Your task to perform on an android device: Search for "dell xps" on amazon.com, select the first entry, add it to the cart, then select checkout. Image 0: 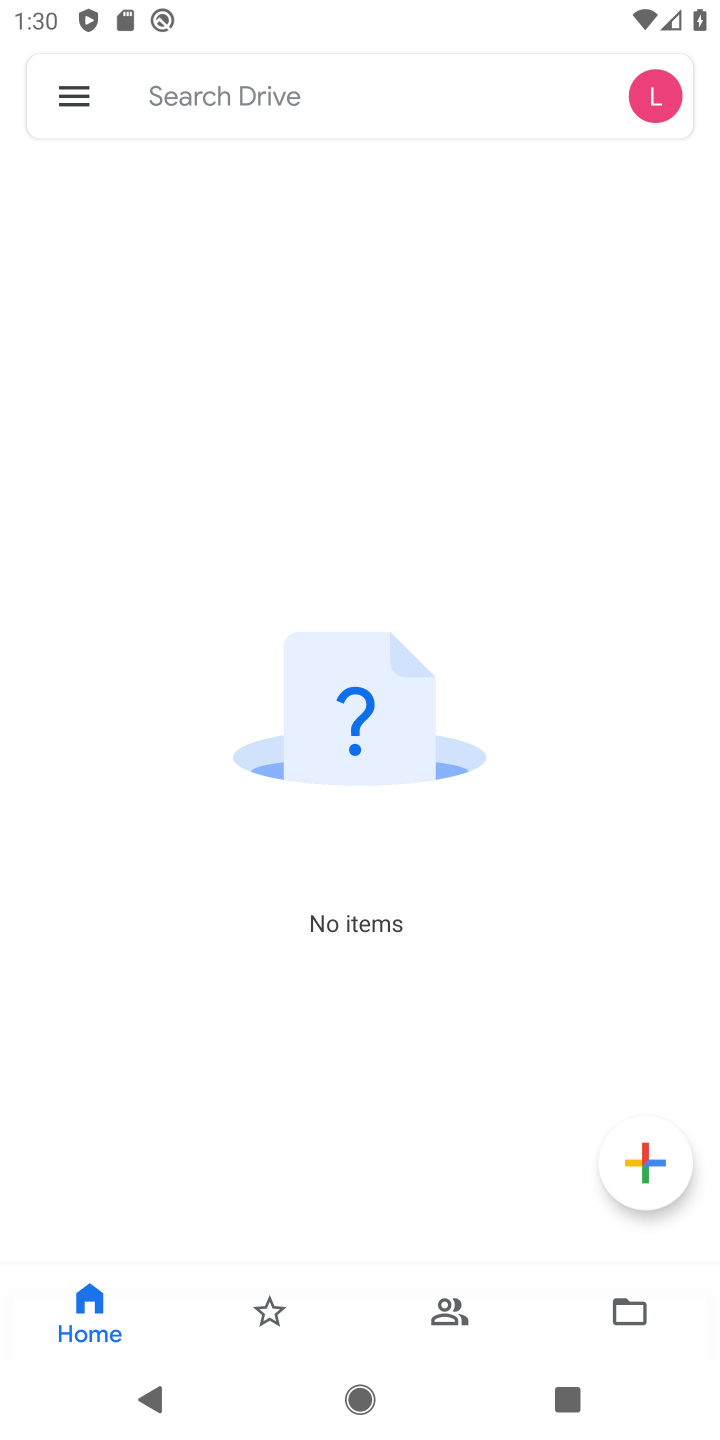
Step 0: press home button
Your task to perform on an android device: Search for "dell xps" on amazon.com, select the first entry, add it to the cart, then select checkout. Image 1: 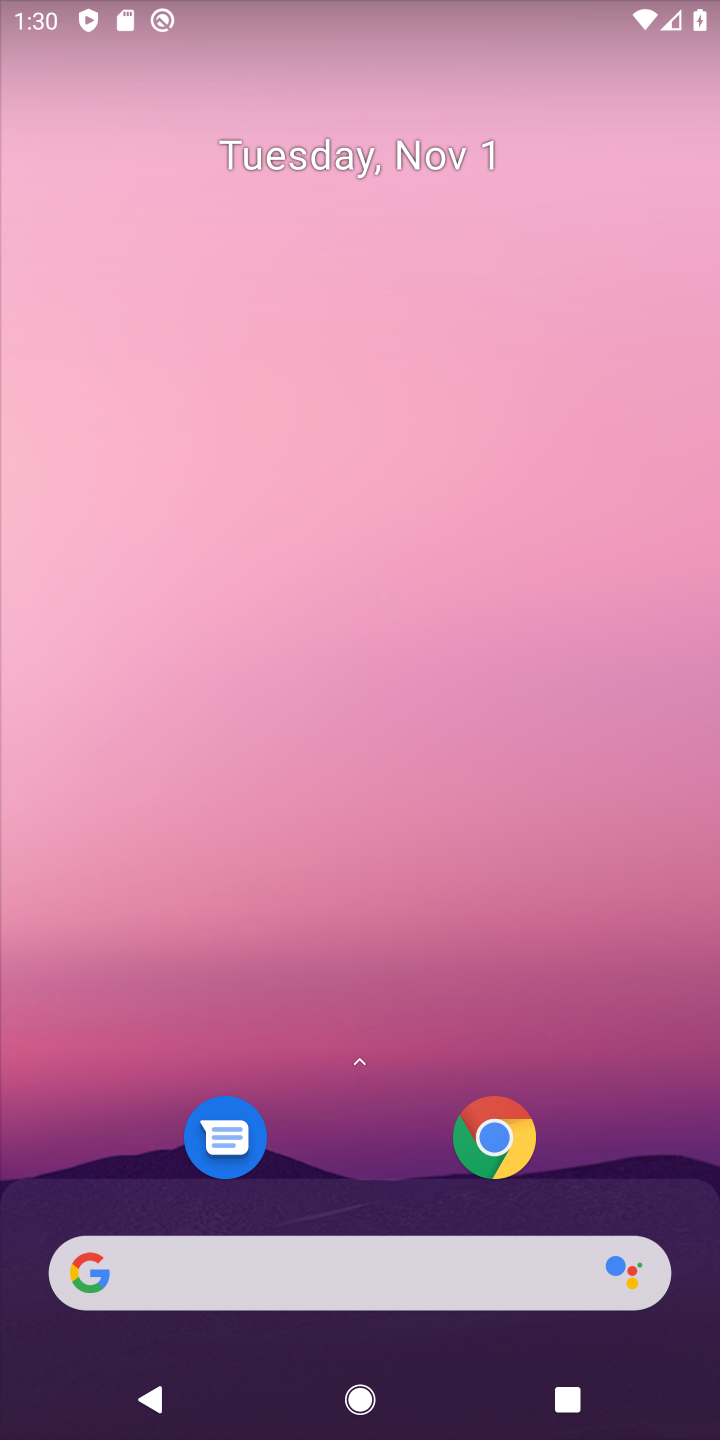
Step 1: click (291, 1312)
Your task to perform on an android device: Search for "dell xps" on amazon.com, select the first entry, add it to the cart, then select checkout. Image 2: 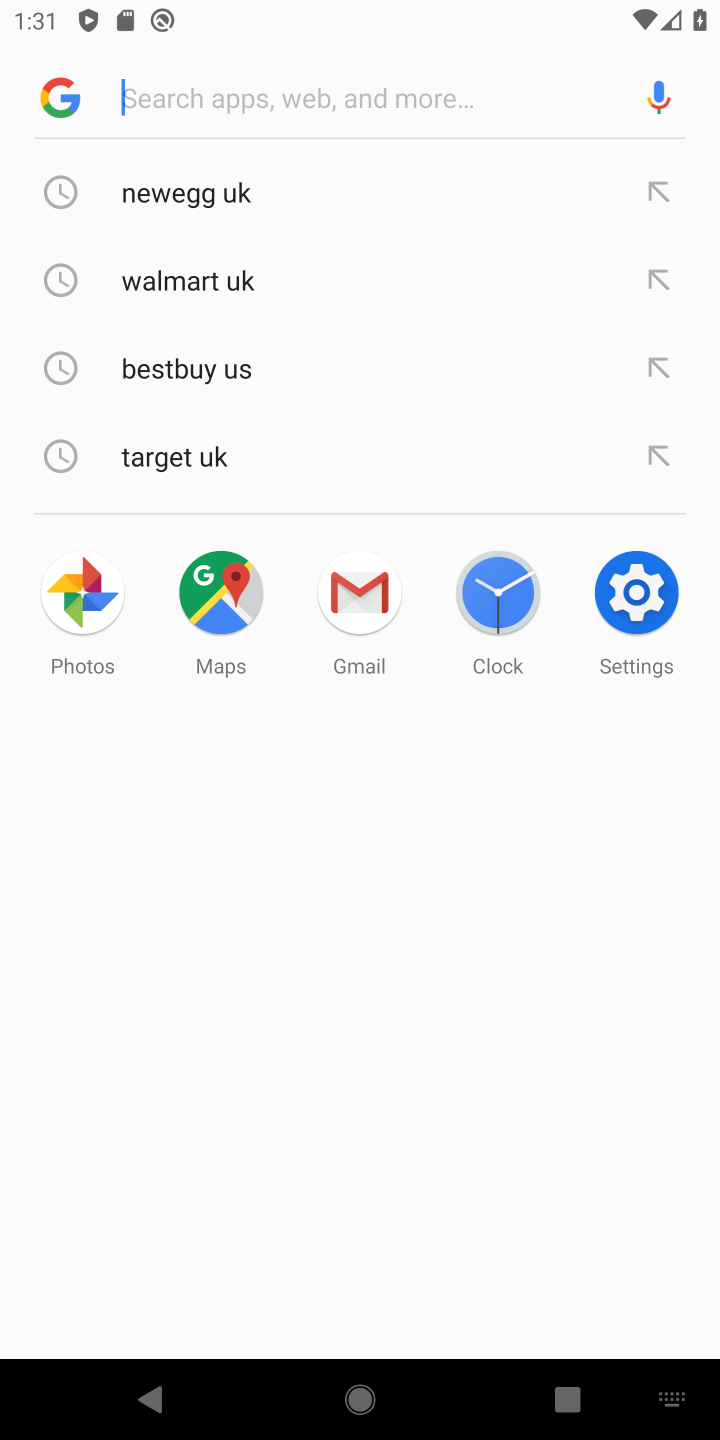
Step 2: type "amazonew"
Your task to perform on an android device: Search for "dell xps" on amazon.com, select the first entry, add it to the cart, then select checkout. Image 3: 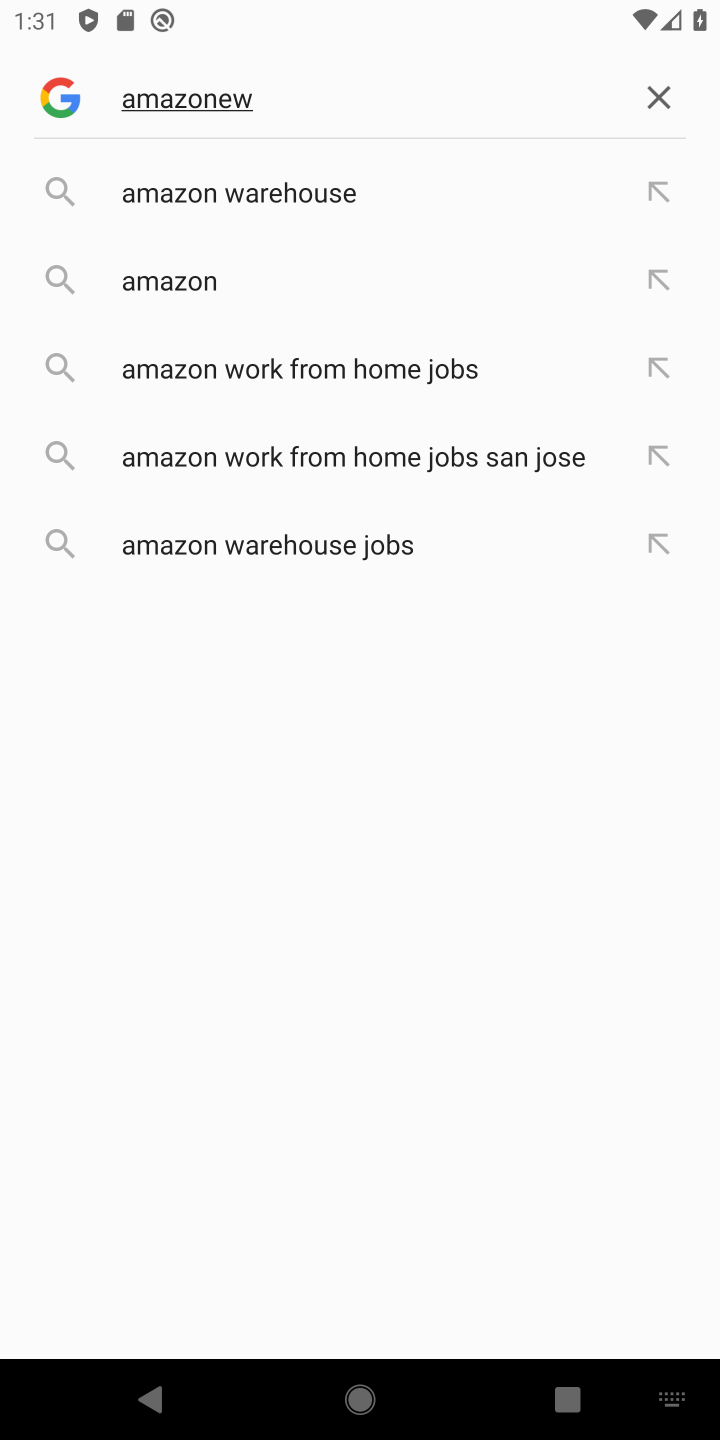
Step 3: click (224, 270)
Your task to perform on an android device: Search for "dell xps" on amazon.com, select the first entry, add it to the cart, then select checkout. Image 4: 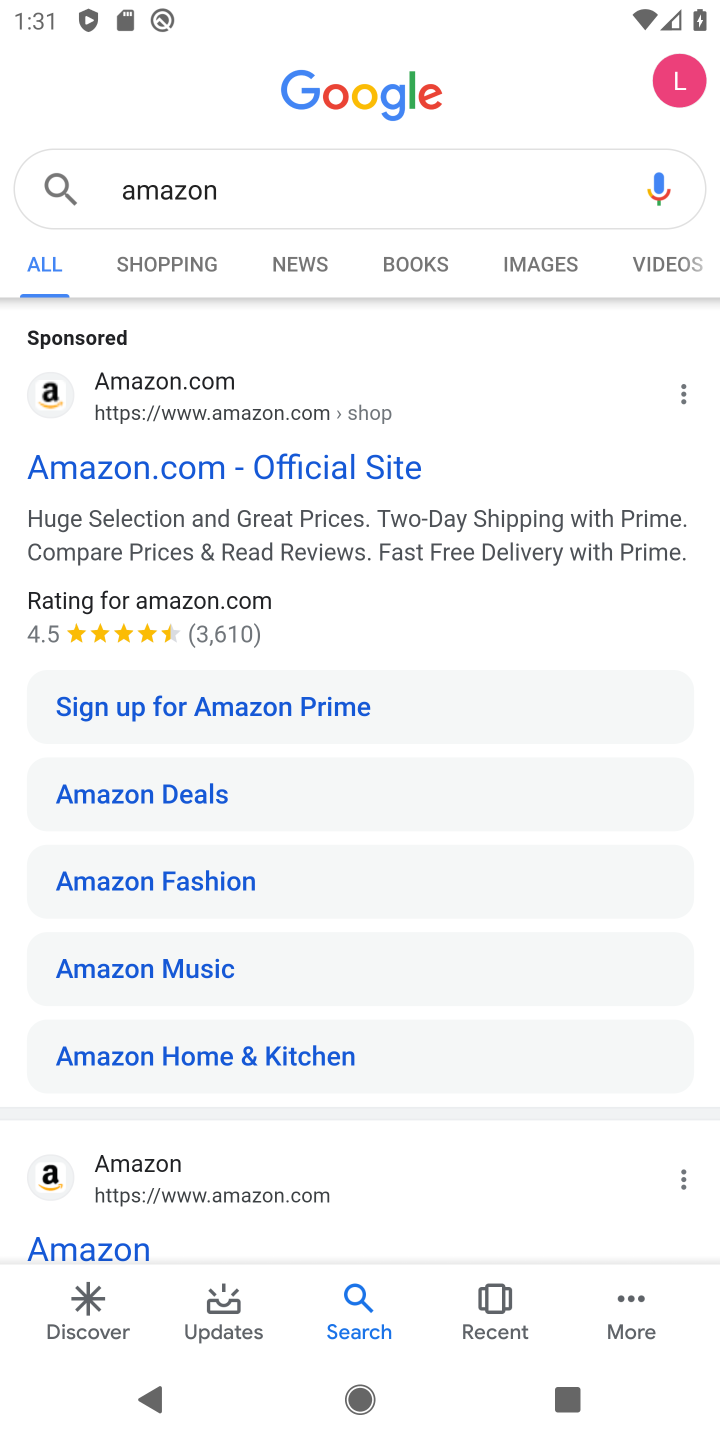
Step 4: click (162, 490)
Your task to perform on an android device: Search for "dell xps" on amazon.com, select the first entry, add it to the cart, then select checkout. Image 5: 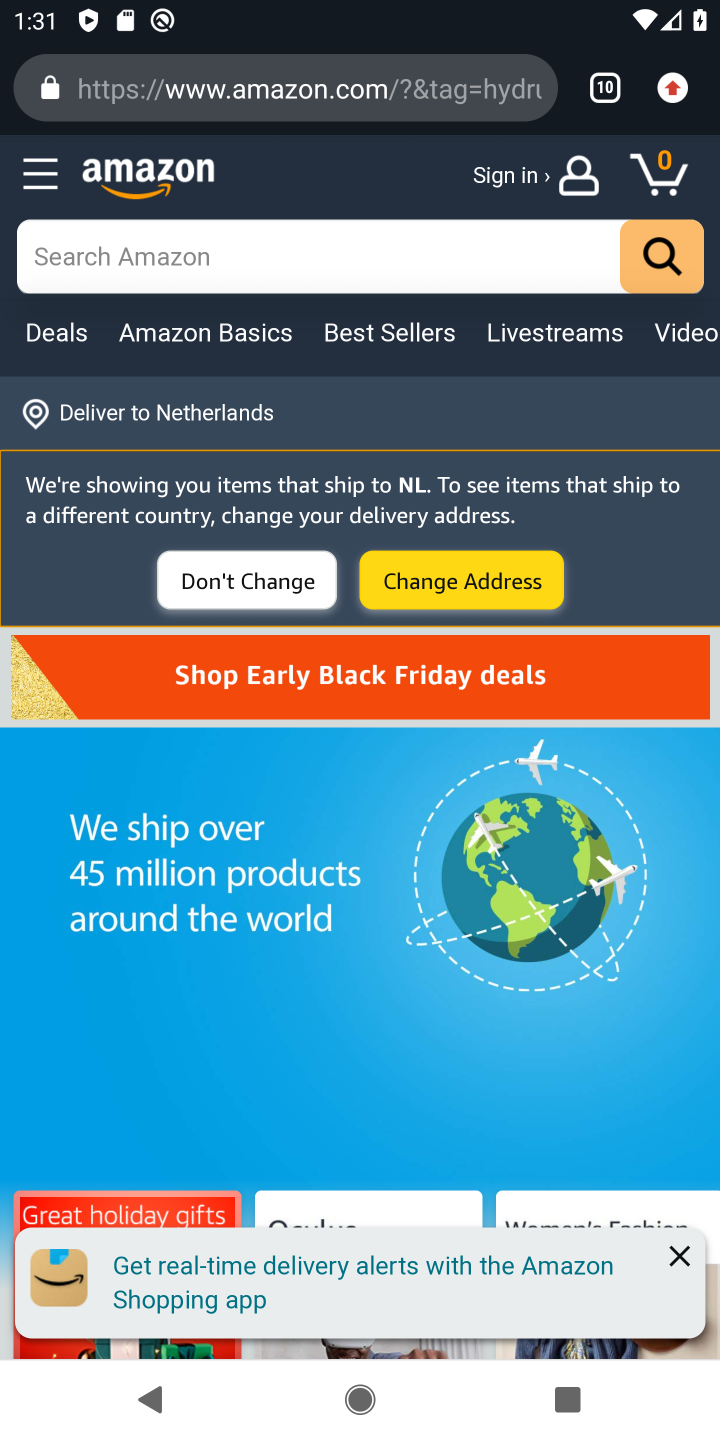
Step 5: click (225, 280)
Your task to perform on an android device: Search for "dell xps" on amazon.com, select the first entry, add it to the cart, then select checkout. Image 6: 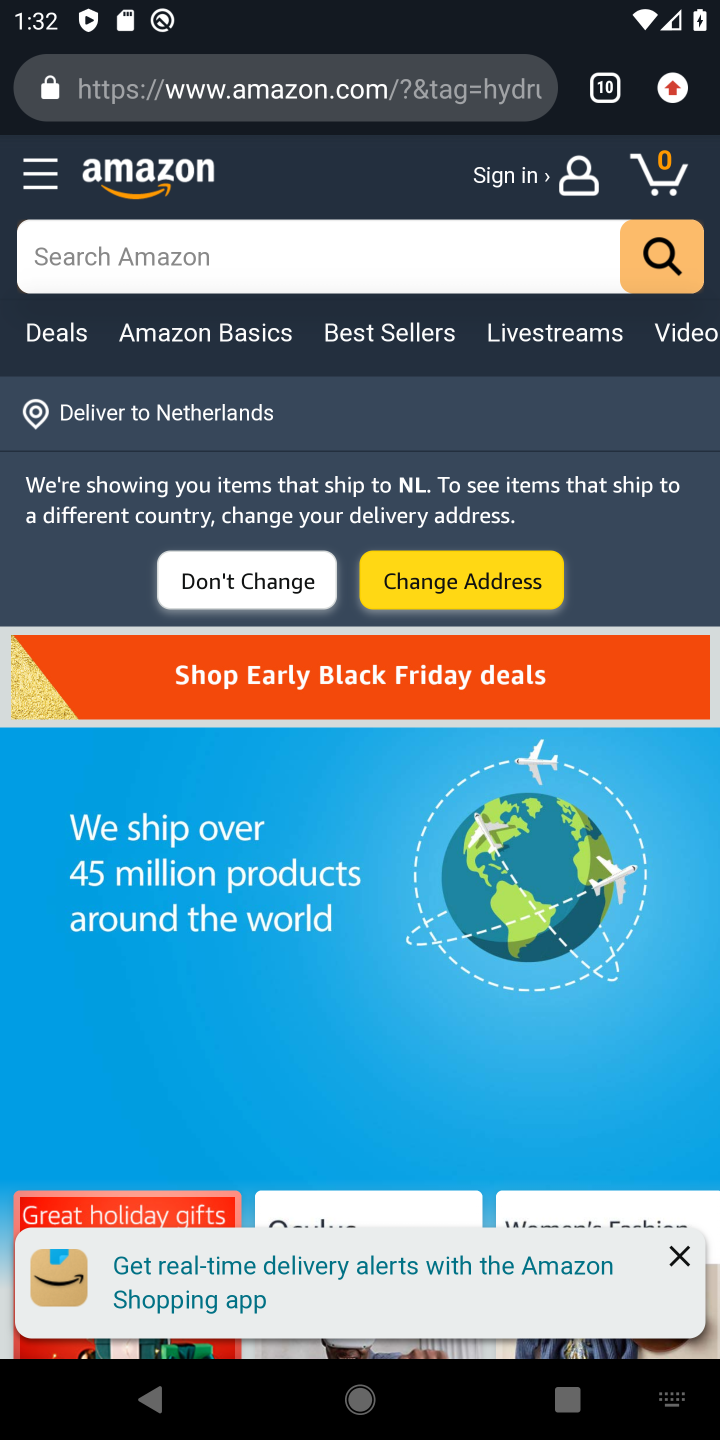
Step 6: type "dell xps"
Your task to perform on an android device: Search for "dell xps" on amazon.com, select the first entry, add it to the cart, then select checkout. Image 7: 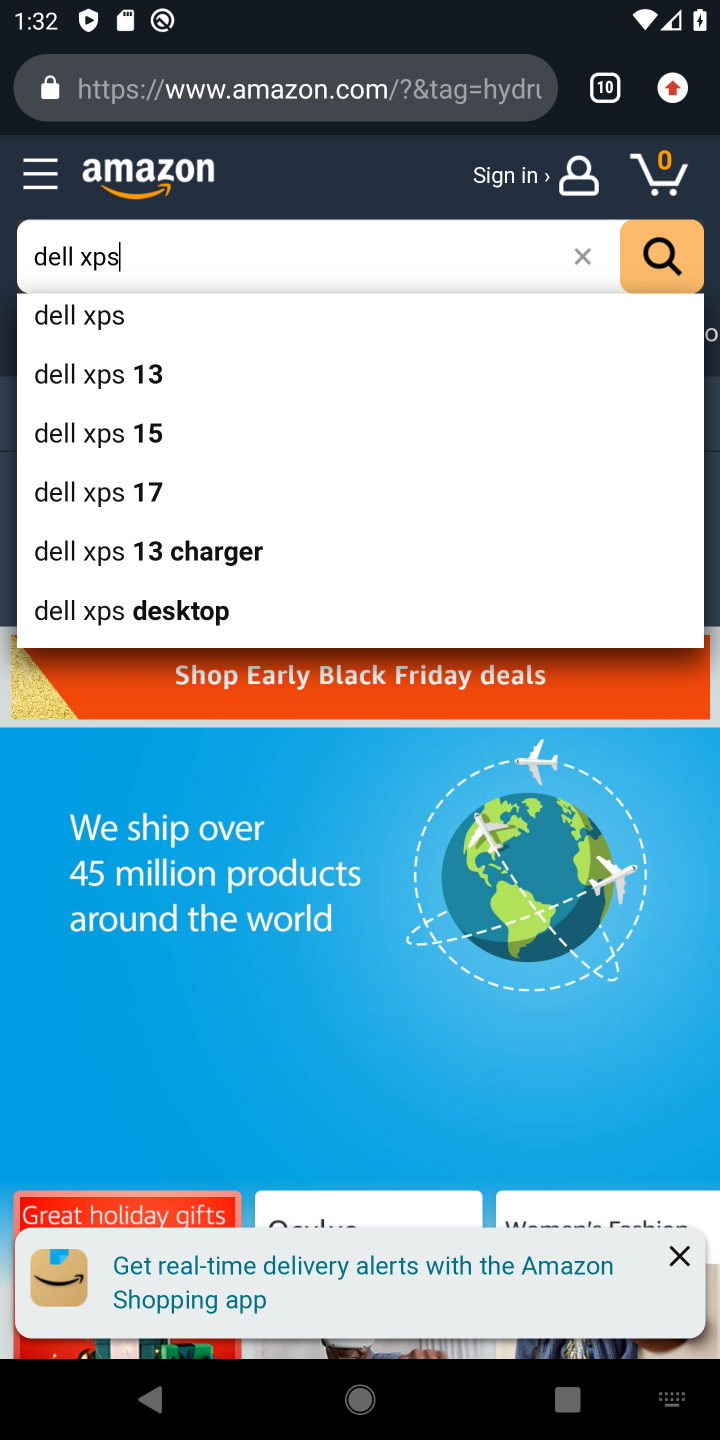
Step 7: click (118, 322)
Your task to perform on an android device: Search for "dell xps" on amazon.com, select the first entry, add it to the cart, then select checkout. Image 8: 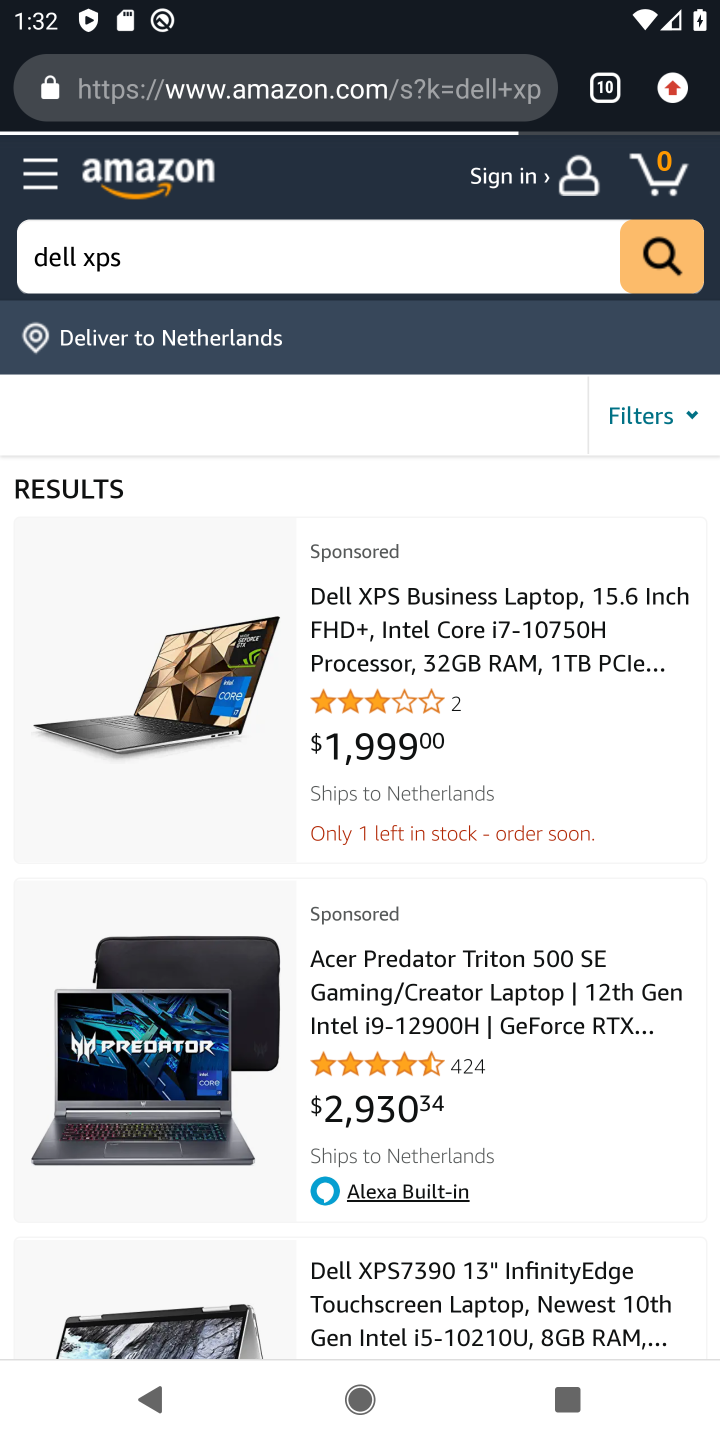
Step 8: click (314, 627)
Your task to perform on an android device: Search for "dell xps" on amazon.com, select the first entry, add it to the cart, then select checkout. Image 9: 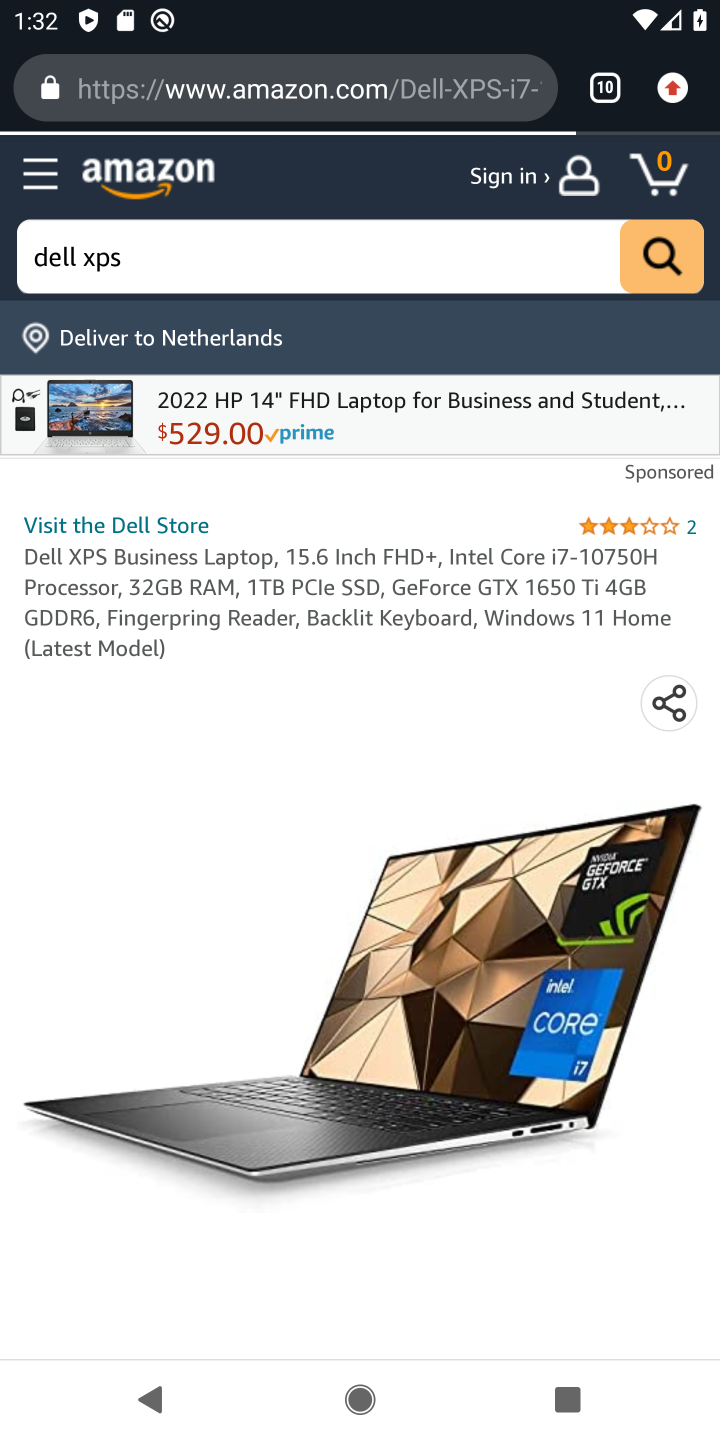
Step 9: drag from (415, 1065) to (413, 521)
Your task to perform on an android device: Search for "dell xps" on amazon.com, select the first entry, add it to the cart, then select checkout. Image 10: 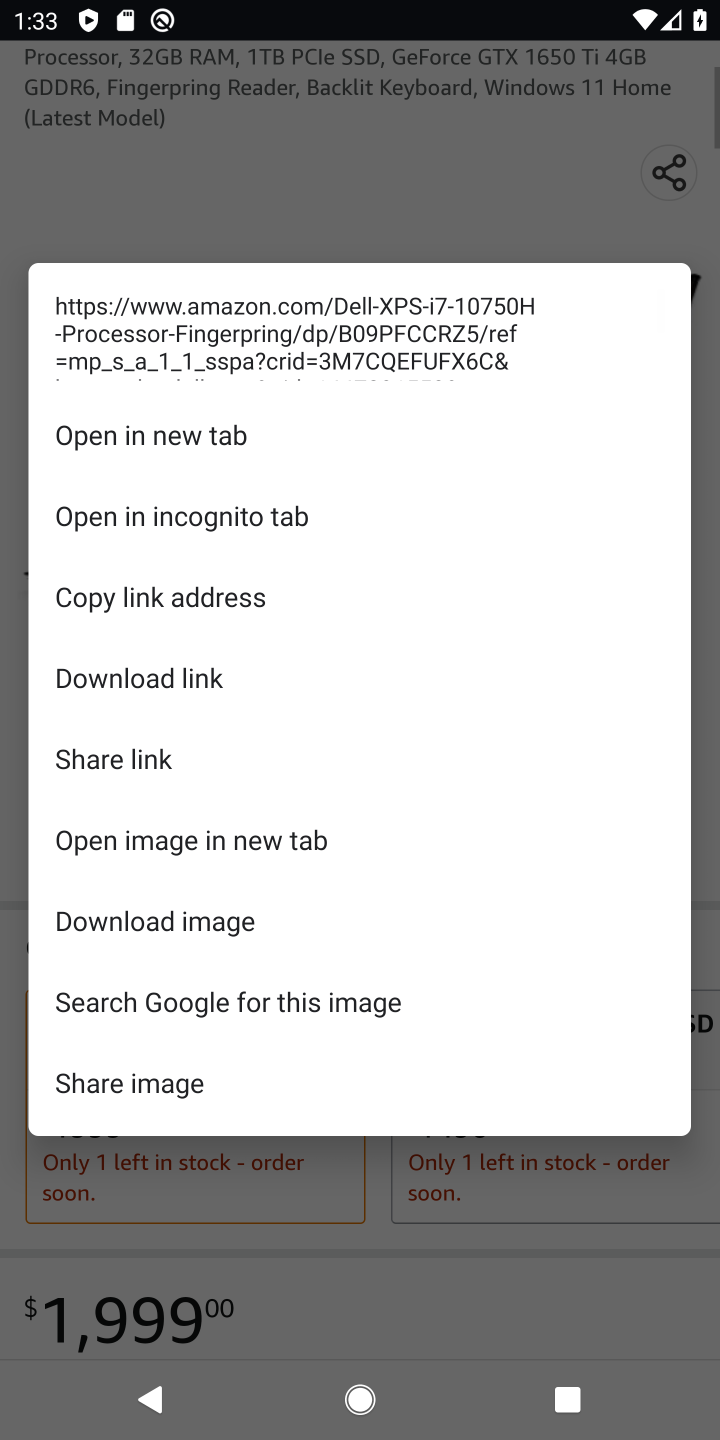
Step 10: click (417, 1183)
Your task to perform on an android device: Search for "dell xps" on amazon.com, select the first entry, add it to the cart, then select checkout. Image 11: 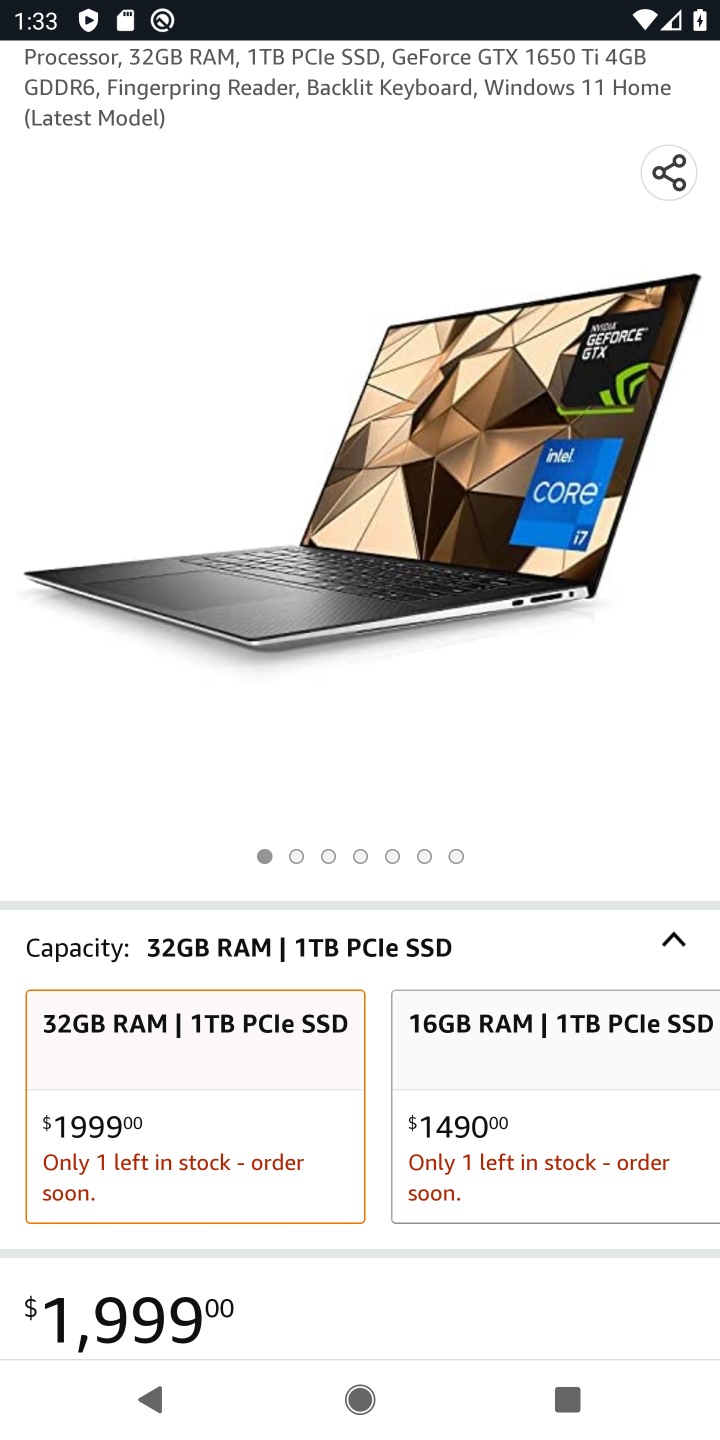
Step 11: drag from (417, 1183) to (435, 305)
Your task to perform on an android device: Search for "dell xps" on amazon.com, select the first entry, add it to the cart, then select checkout. Image 12: 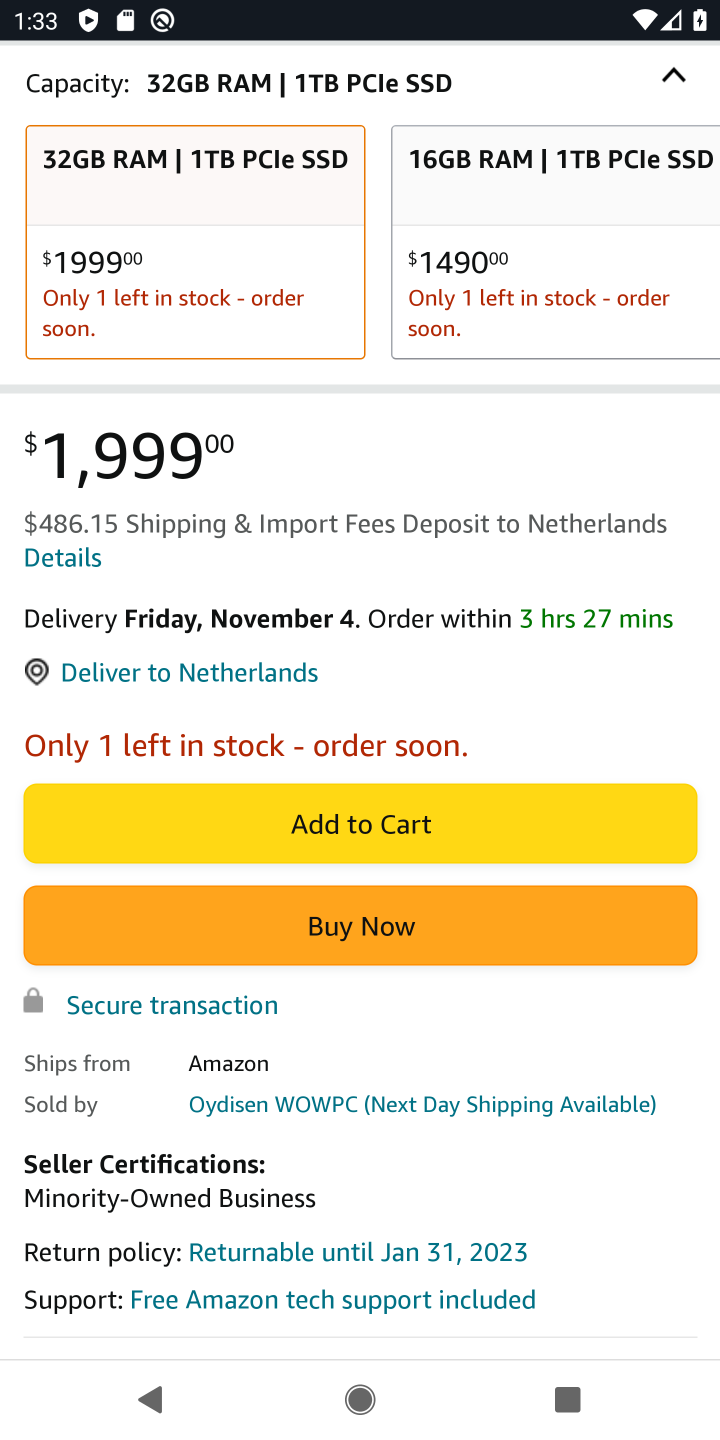
Step 12: click (378, 811)
Your task to perform on an android device: Search for "dell xps" on amazon.com, select the first entry, add it to the cart, then select checkout. Image 13: 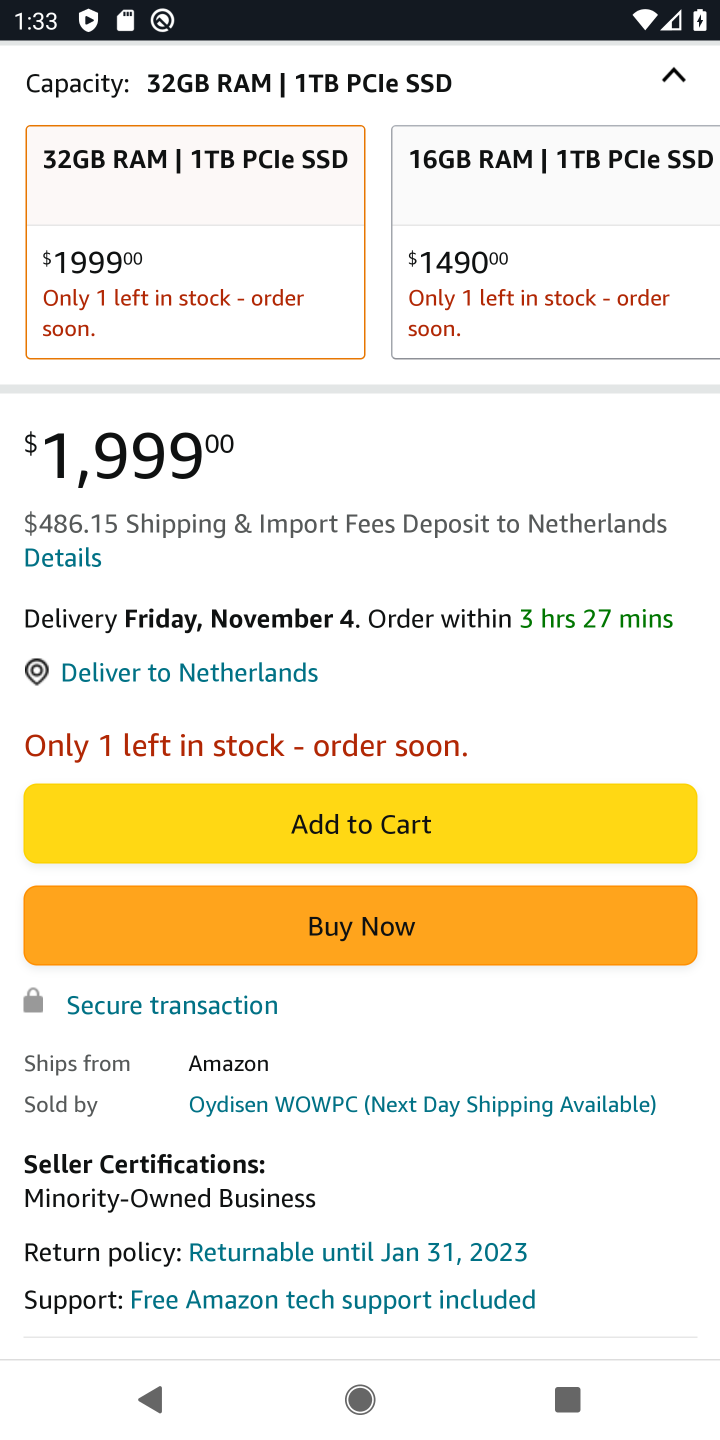
Step 13: task complete